Your task to perform on an android device: turn pop-ups on in chrome Image 0: 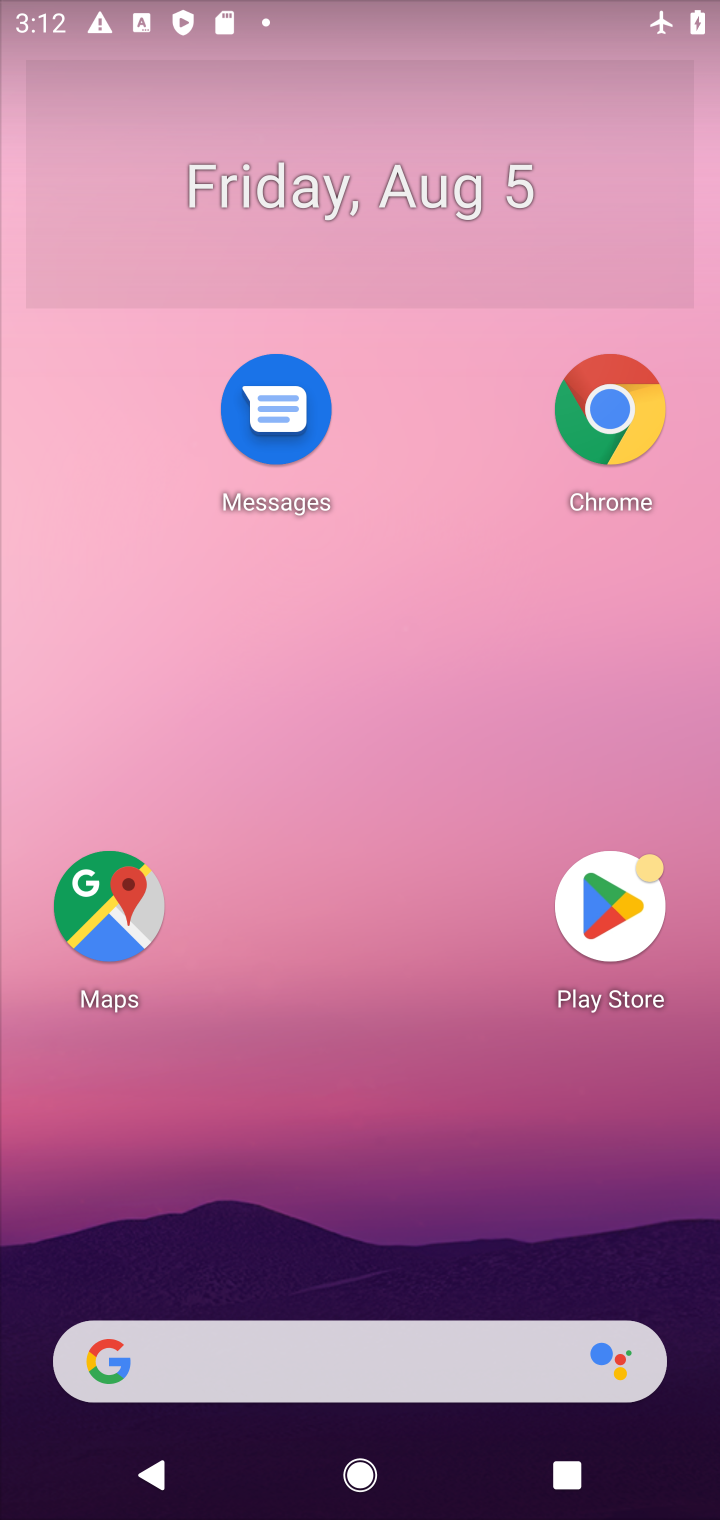
Step 0: click (622, 440)
Your task to perform on an android device: turn pop-ups on in chrome Image 1: 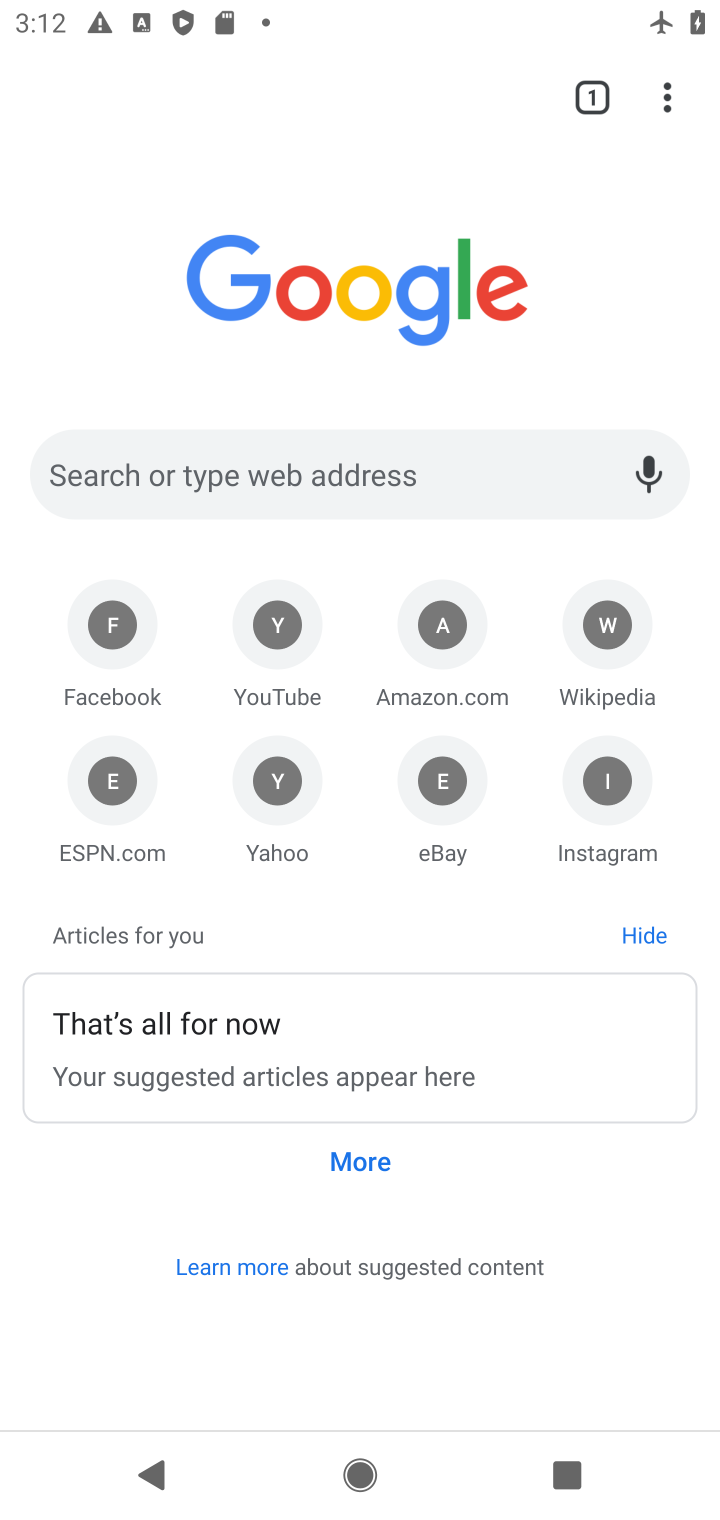
Step 1: click (664, 100)
Your task to perform on an android device: turn pop-ups on in chrome Image 2: 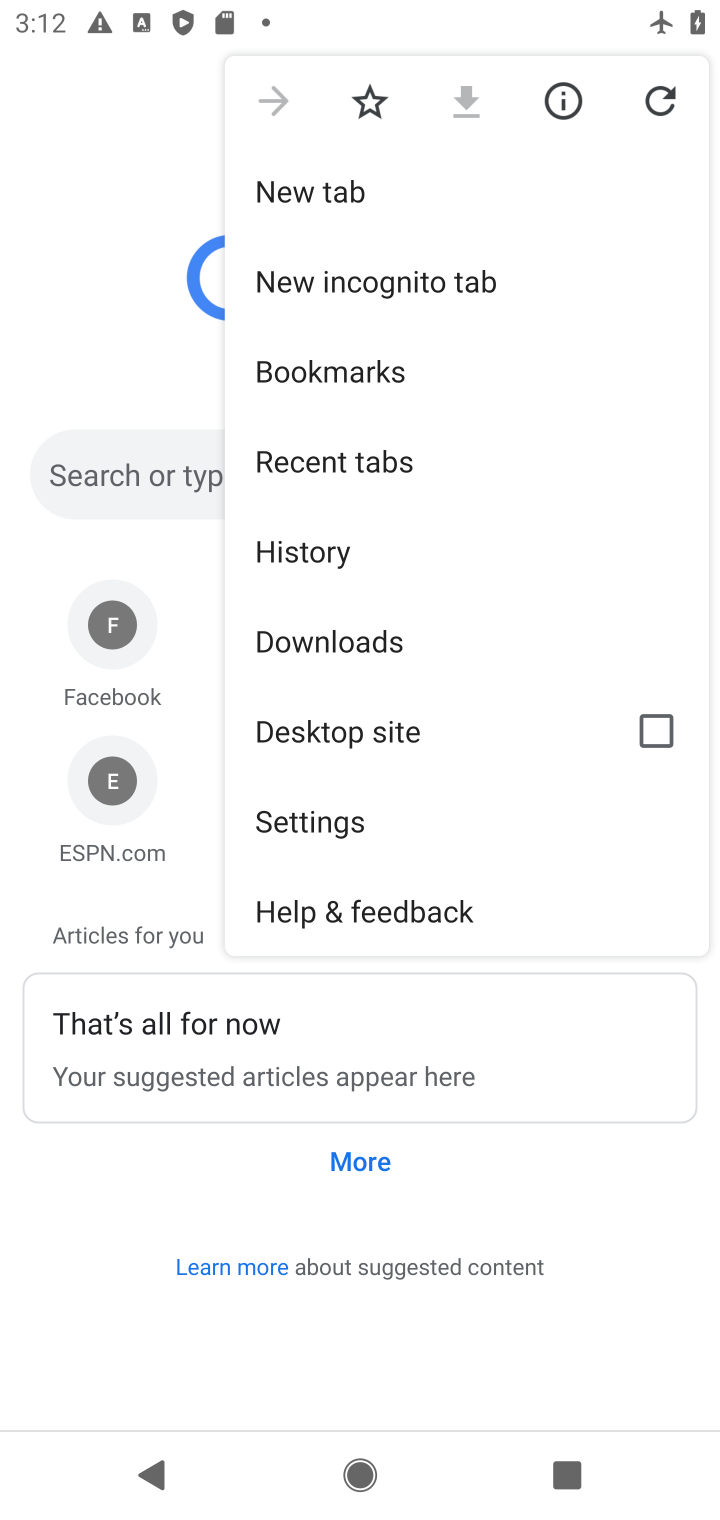
Step 2: click (325, 804)
Your task to perform on an android device: turn pop-ups on in chrome Image 3: 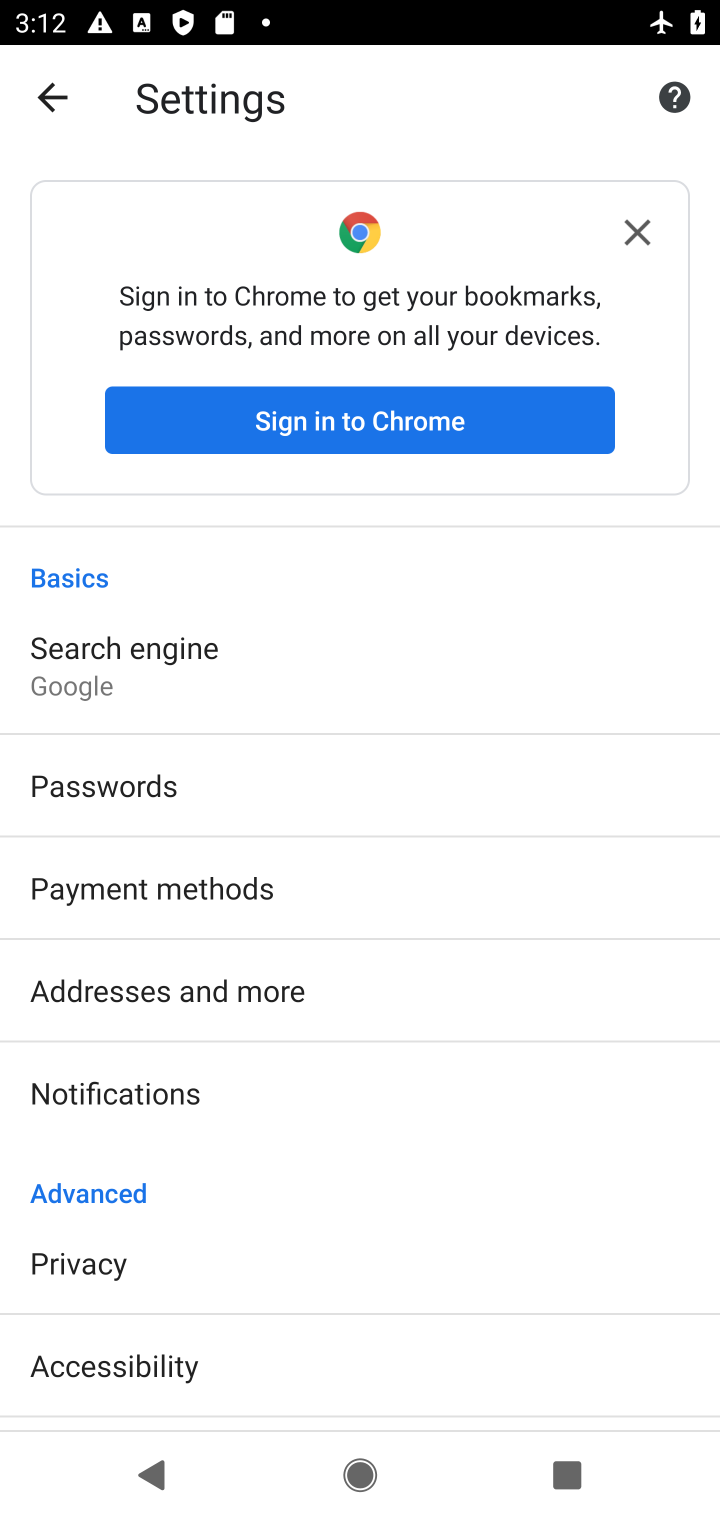
Step 3: drag from (349, 1216) to (369, 519)
Your task to perform on an android device: turn pop-ups on in chrome Image 4: 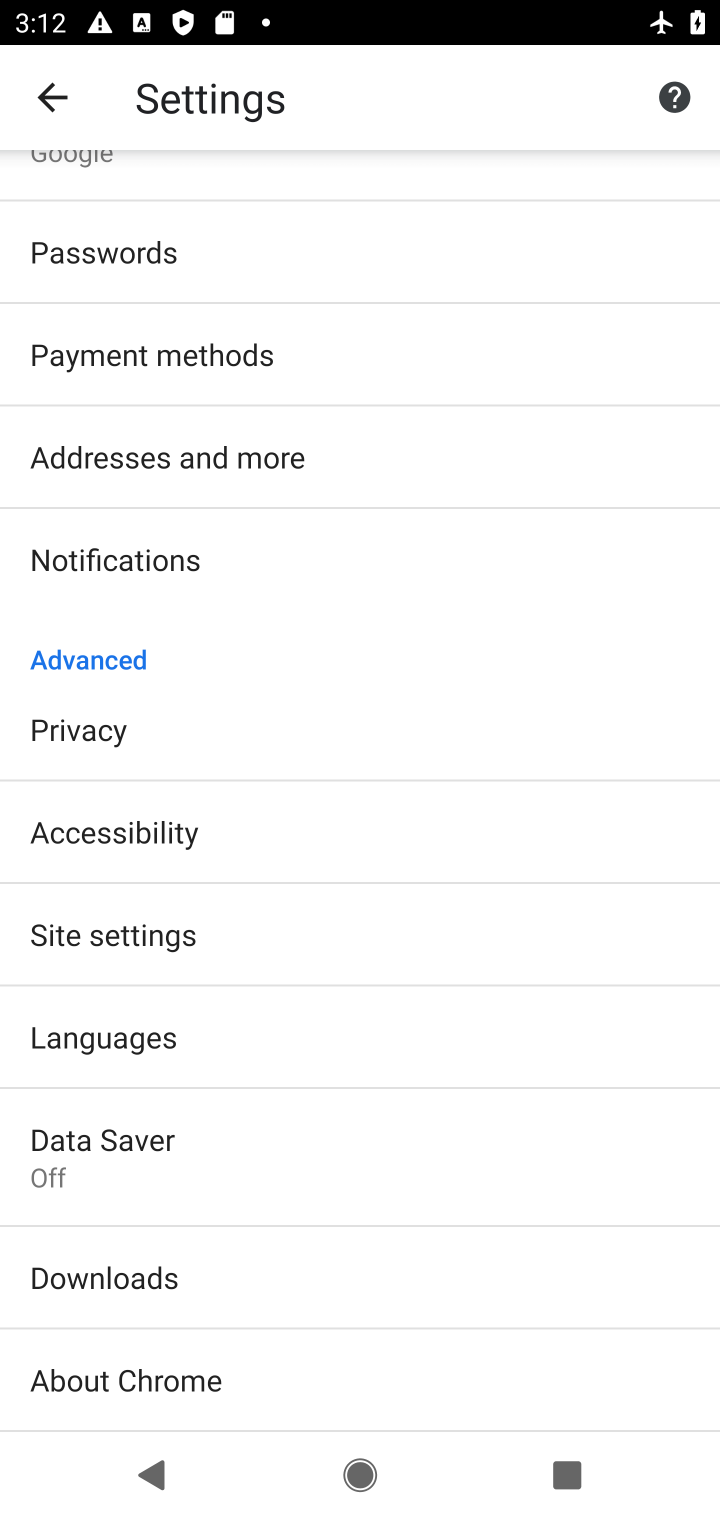
Step 4: click (241, 914)
Your task to perform on an android device: turn pop-ups on in chrome Image 5: 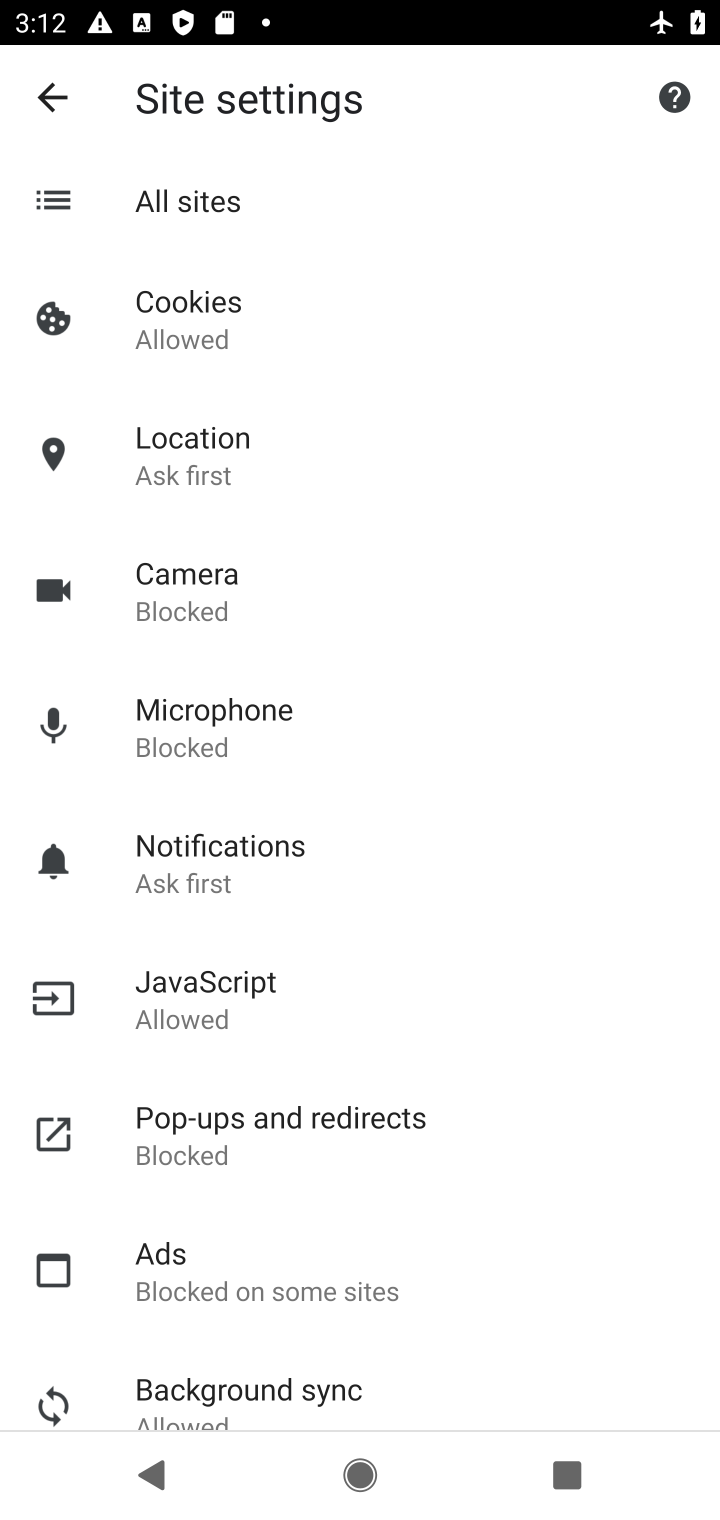
Step 5: click (266, 1135)
Your task to perform on an android device: turn pop-ups on in chrome Image 6: 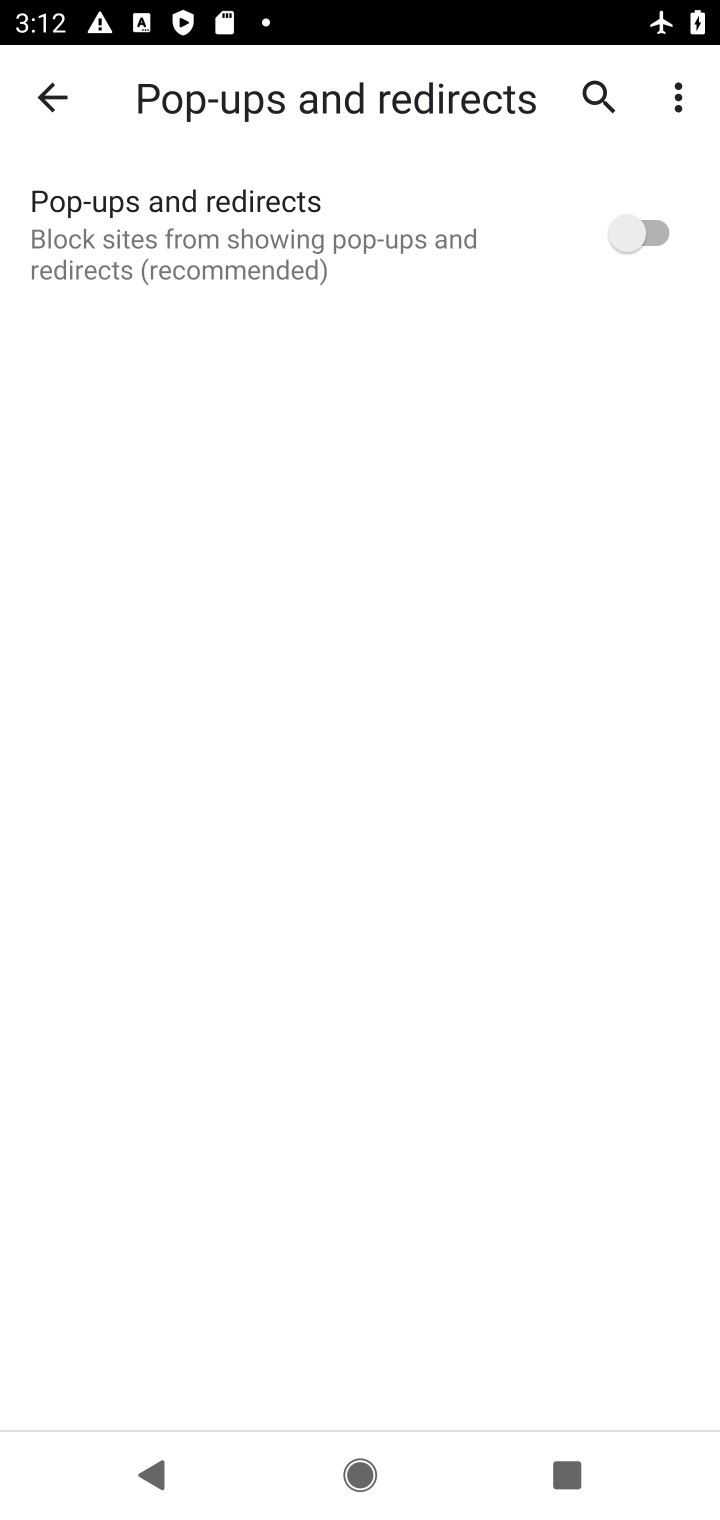
Step 6: click (652, 224)
Your task to perform on an android device: turn pop-ups on in chrome Image 7: 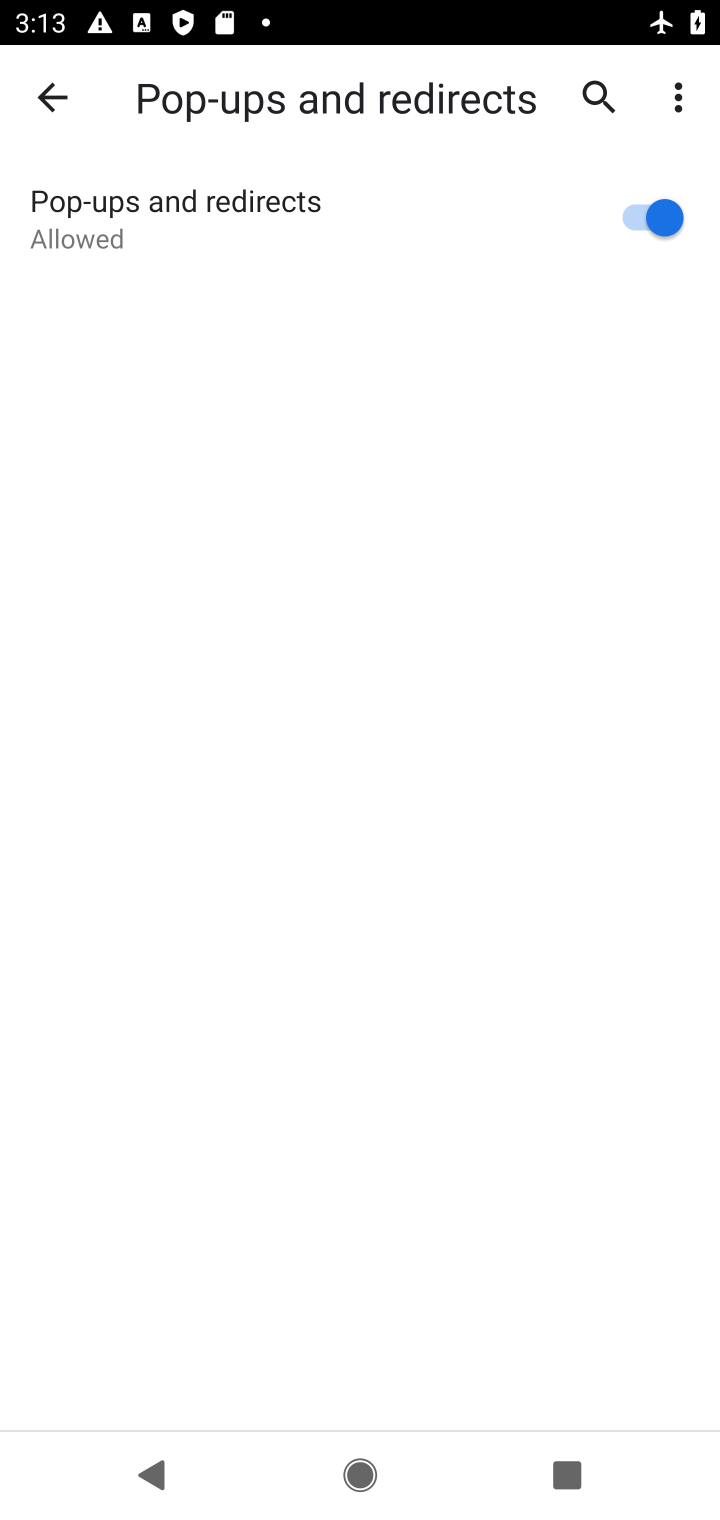
Step 7: task complete